Your task to perform on an android device: Search for razer blade on target, select the first entry, add it to the cart, then select checkout. Image 0: 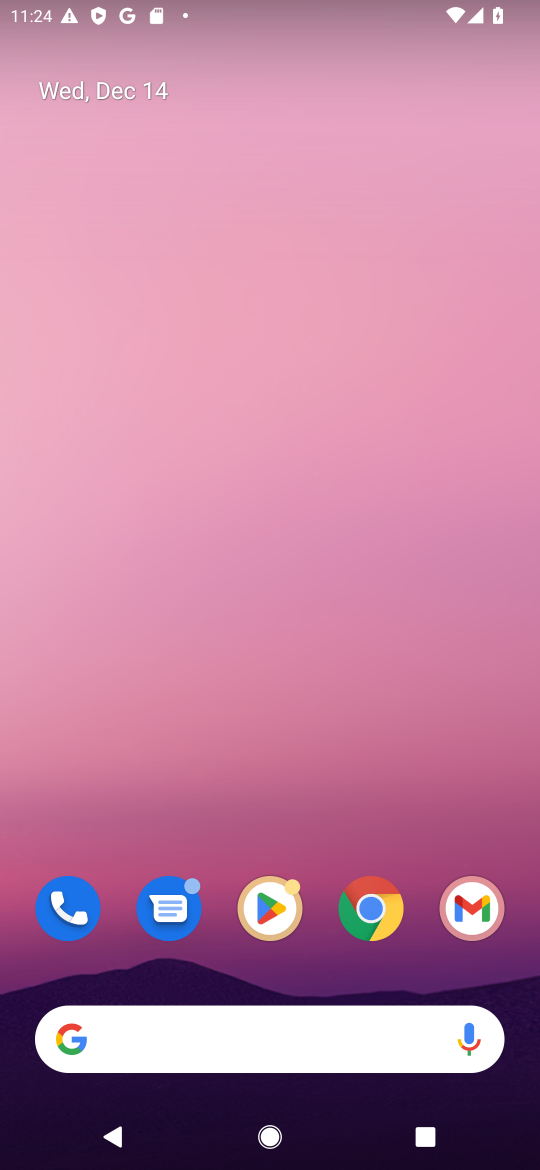
Step 0: click (364, 907)
Your task to perform on an android device: Search for razer blade on target, select the first entry, add it to the cart, then select checkout. Image 1: 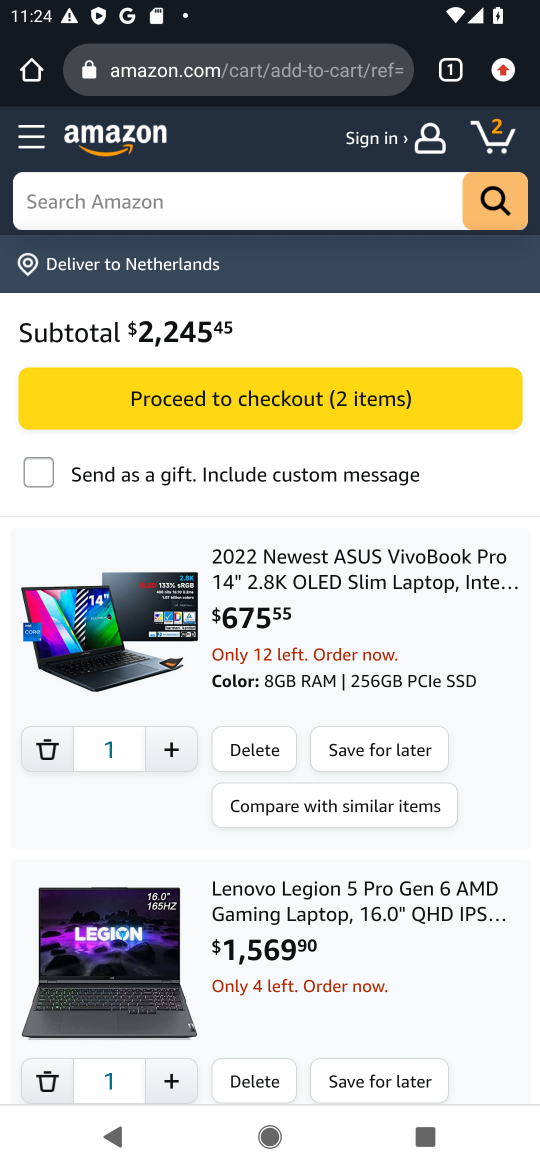
Step 1: click (250, 75)
Your task to perform on an android device: Search for razer blade on target, select the first entry, add it to the cart, then select checkout. Image 2: 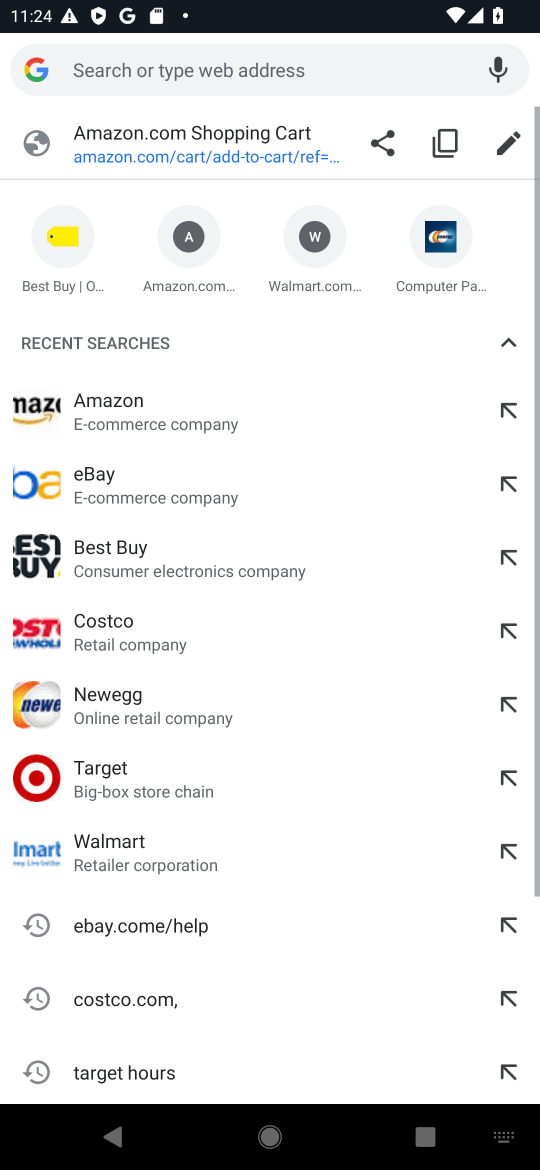
Step 2: type "target"
Your task to perform on an android device: Search for razer blade on target, select the first entry, add it to the cart, then select checkout. Image 3: 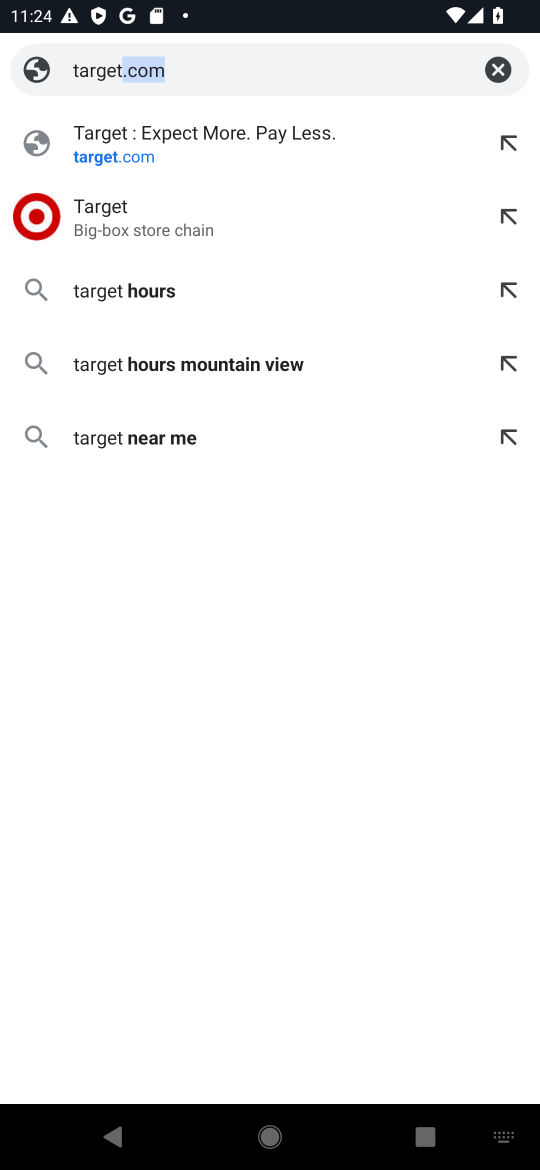
Step 3: click (156, 172)
Your task to perform on an android device: Search for razer blade on target, select the first entry, add it to the cart, then select checkout. Image 4: 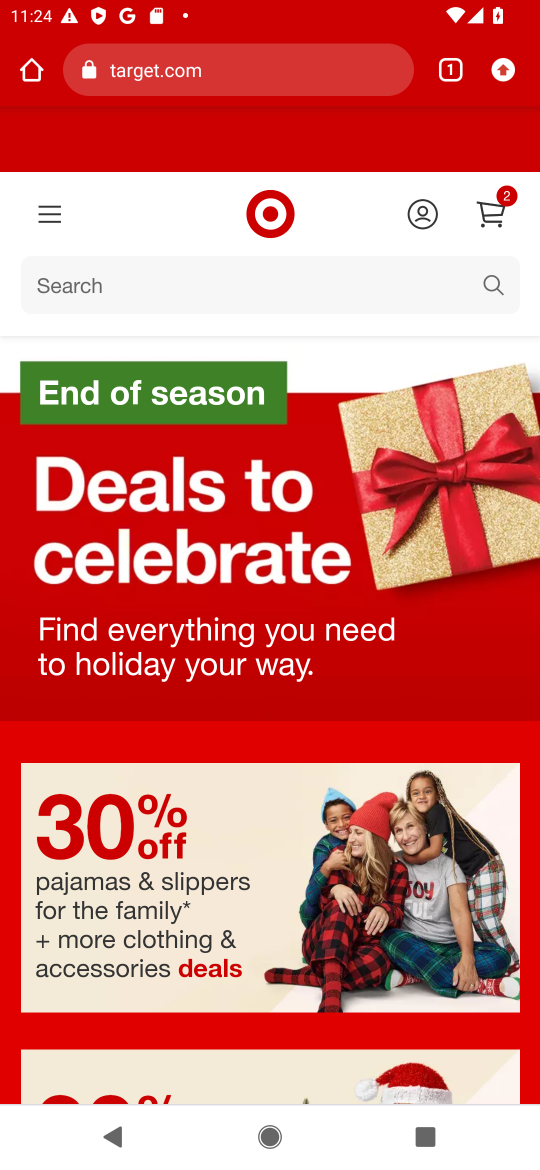
Step 4: click (132, 289)
Your task to perform on an android device: Search for razer blade on target, select the first entry, add it to the cart, then select checkout. Image 5: 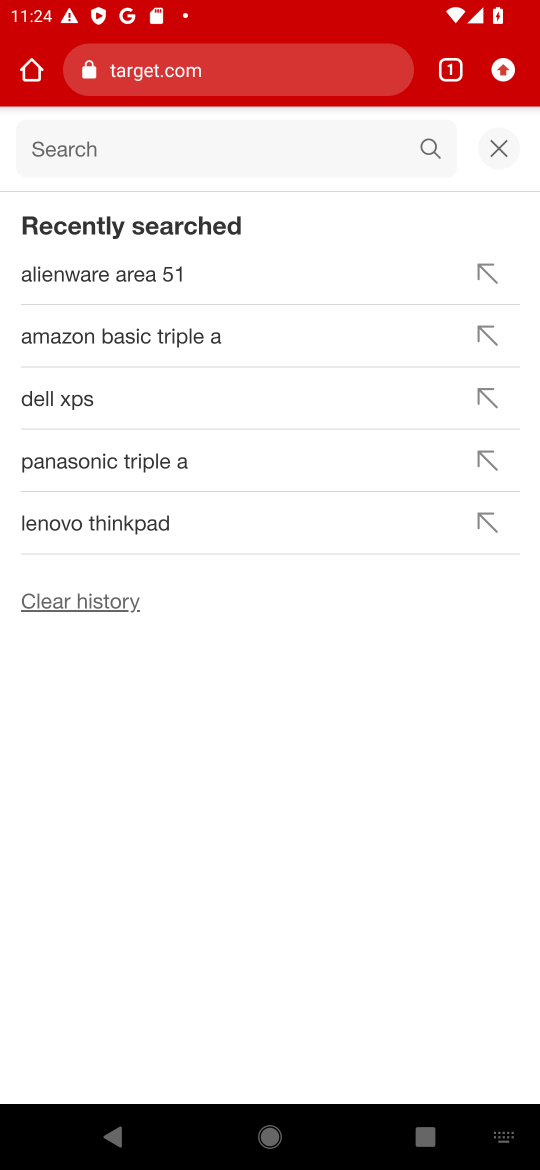
Step 5: type "razer blade"
Your task to perform on an android device: Search for razer blade on target, select the first entry, add it to the cart, then select checkout. Image 6: 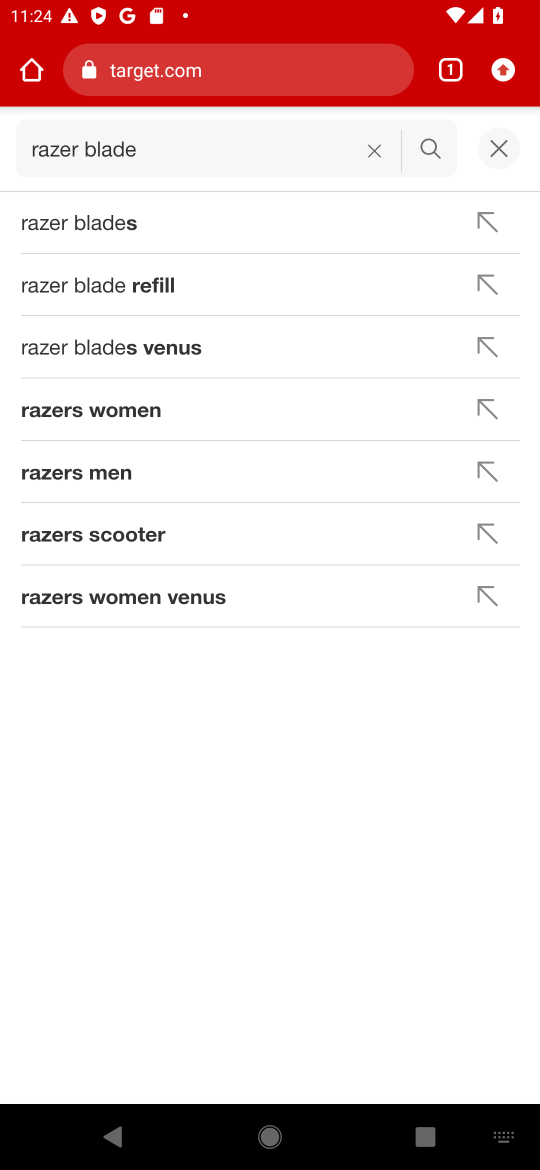
Step 6: click (128, 221)
Your task to perform on an android device: Search for razer blade on target, select the first entry, add it to the cart, then select checkout. Image 7: 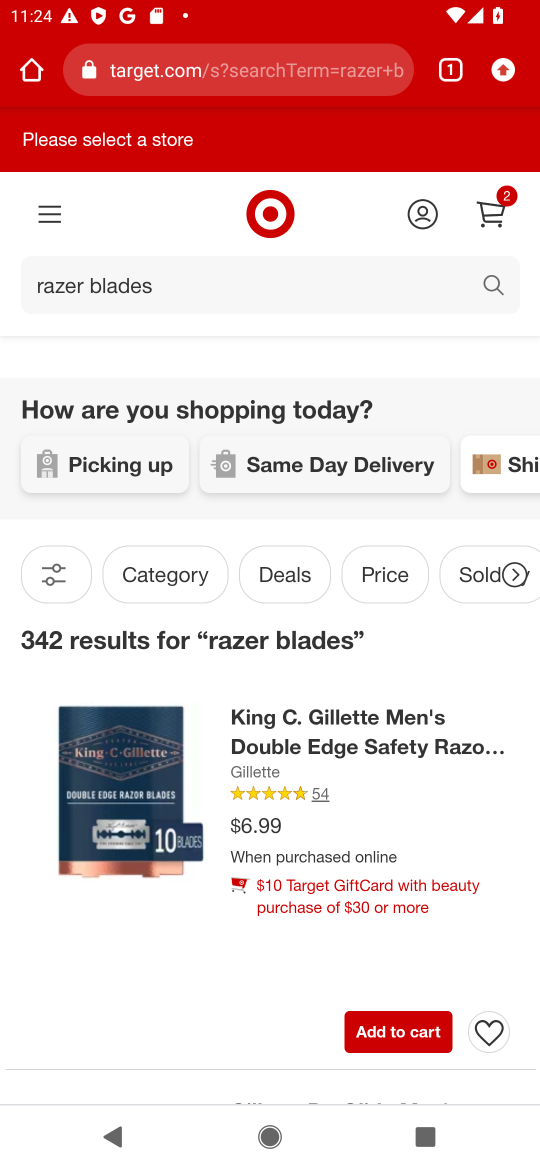
Step 7: click (372, 1022)
Your task to perform on an android device: Search for razer blade on target, select the first entry, add it to the cart, then select checkout. Image 8: 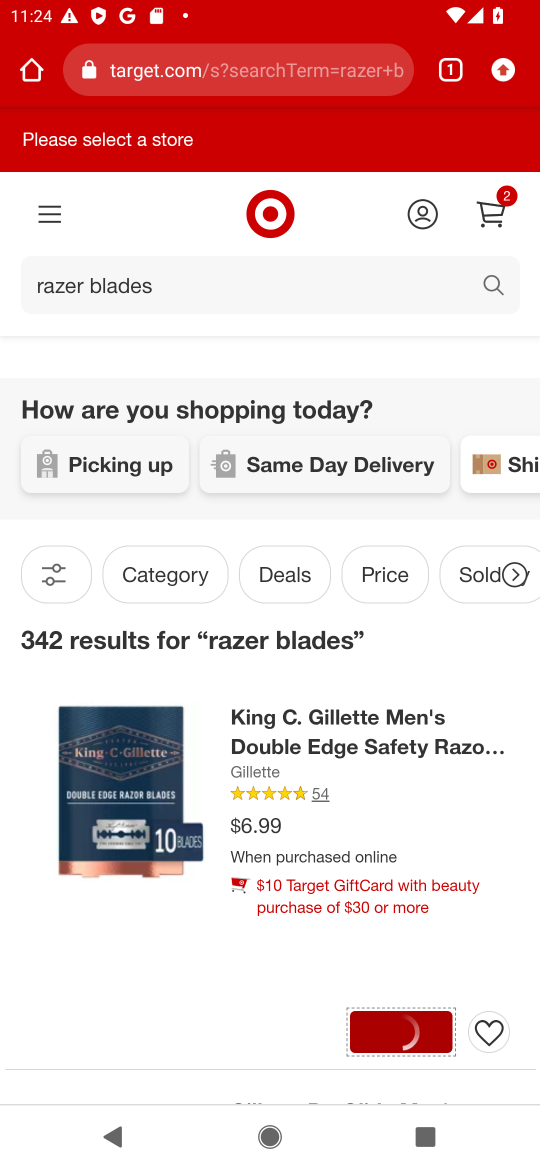
Step 8: task complete